Your task to perform on an android device: turn off smart reply in the gmail app Image 0: 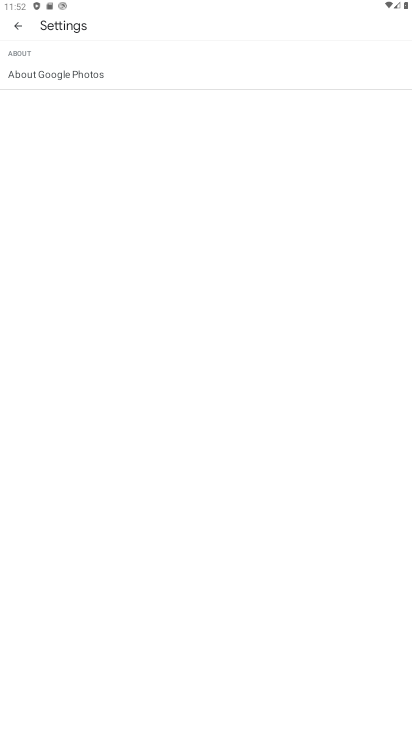
Step 0: press home button
Your task to perform on an android device: turn off smart reply in the gmail app Image 1: 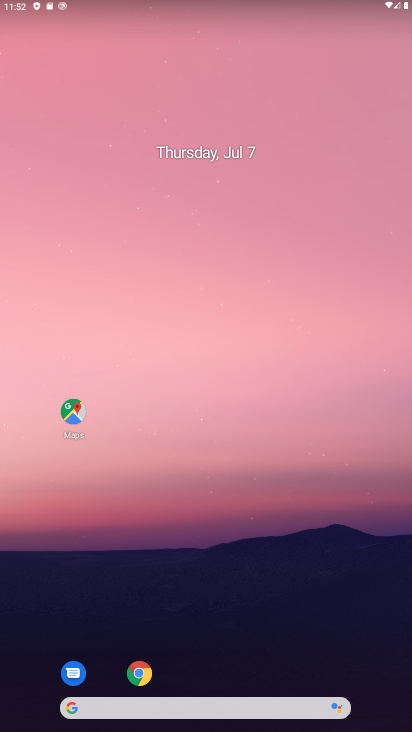
Step 1: drag from (267, 655) to (308, 111)
Your task to perform on an android device: turn off smart reply in the gmail app Image 2: 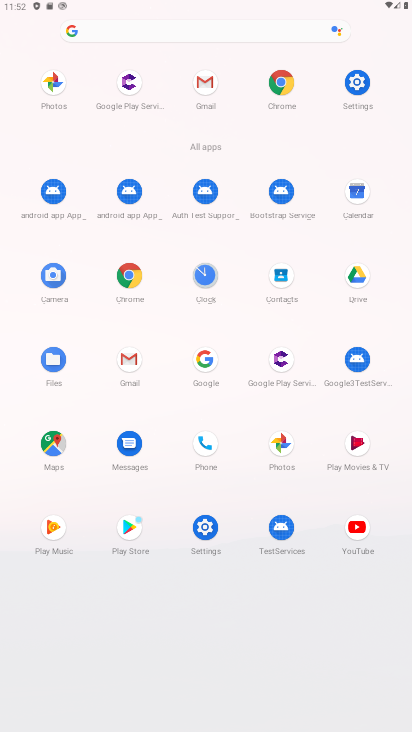
Step 2: click (130, 372)
Your task to perform on an android device: turn off smart reply in the gmail app Image 3: 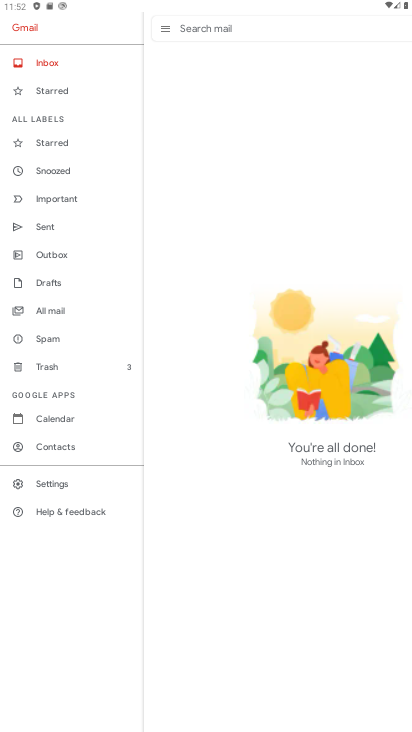
Step 3: click (87, 488)
Your task to perform on an android device: turn off smart reply in the gmail app Image 4: 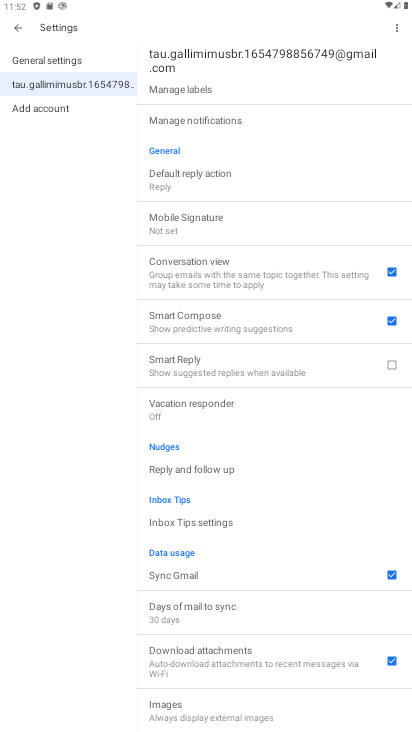
Step 4: task complete